Your task to perform on an android device: open app "Google Calendar" (install if not already installed) Image 0: 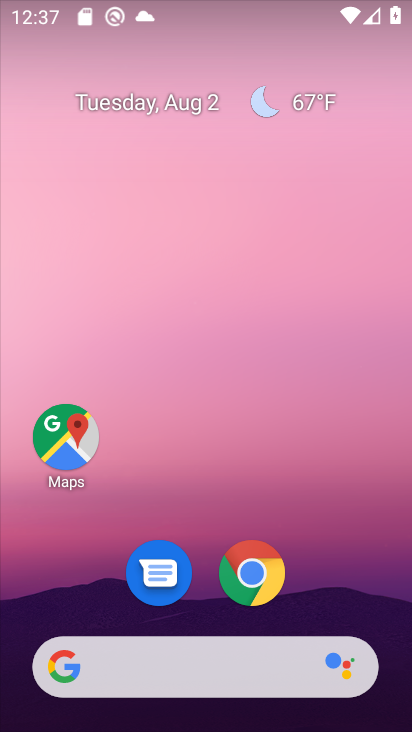
Step 0: drag from (251, 645) to (183, 31)
Your task to perform on an android device: open app "Google Calendar" (install if not already installed) Image 1: 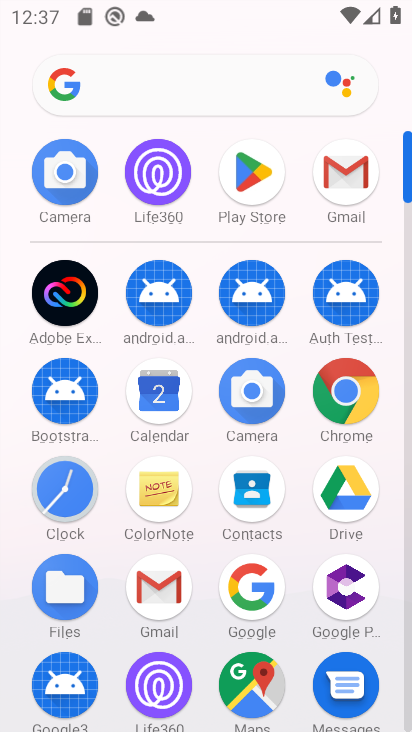
Step 1: click (252, 172)
Your task to perform on an android device: open app "Google Calendar" (install if not already installed) Image 2: 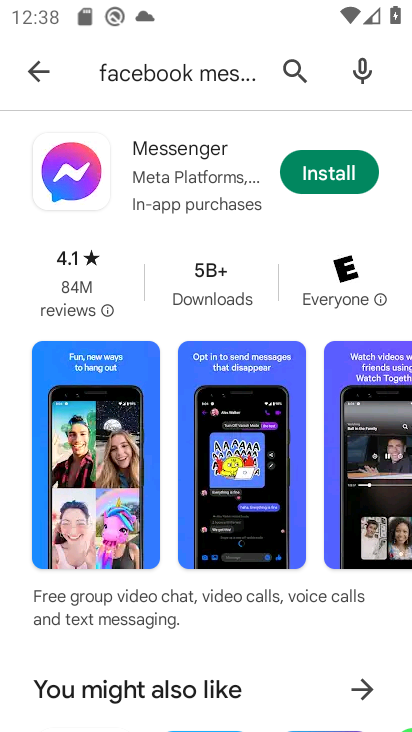
Step 2: click (290, 68)
Your task to perform on an android device: open app "Google Calendar" (install if not already installed) Image 3: 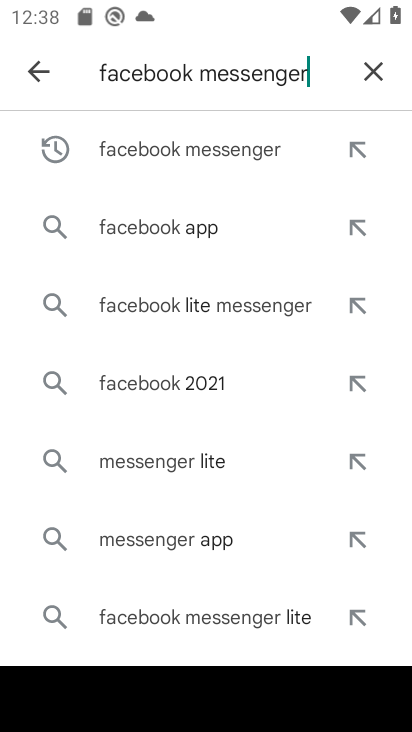
Step 3: click (376, 66)
Your task to perform on an android device: open app "Google Calendar" (install if not already installed) Image 4: 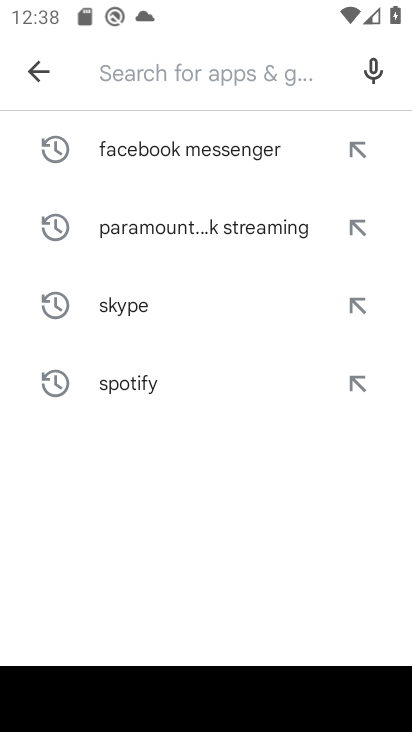
Step 4: type "google calender"
Your task to perform on an android device: open app "Google Calendar" (install if not already installed) Image 5: 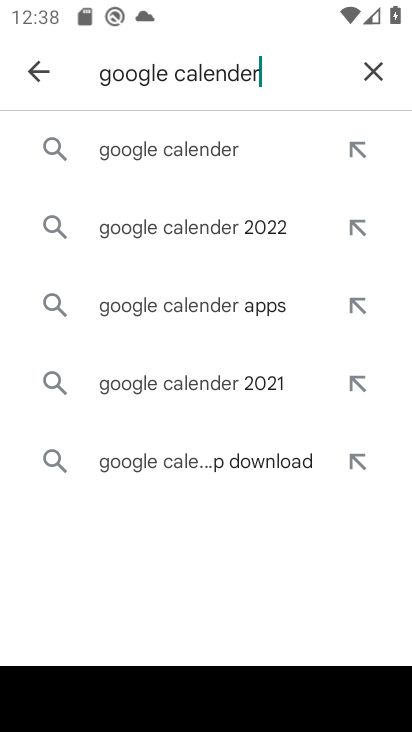
Step 5: click (282, 142)
Your task to perform on an android device: open app "Google Calendar" (install if not already installed) Image 6: 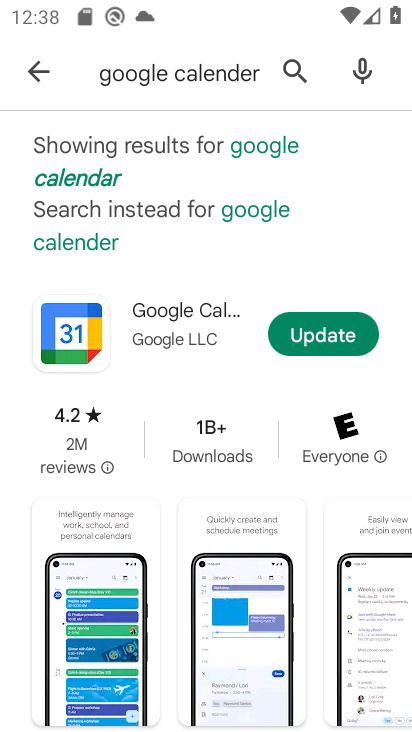
Step 6: task complete